Your task to perform on an android device: Is it going to rain tomorrow? Image 0: 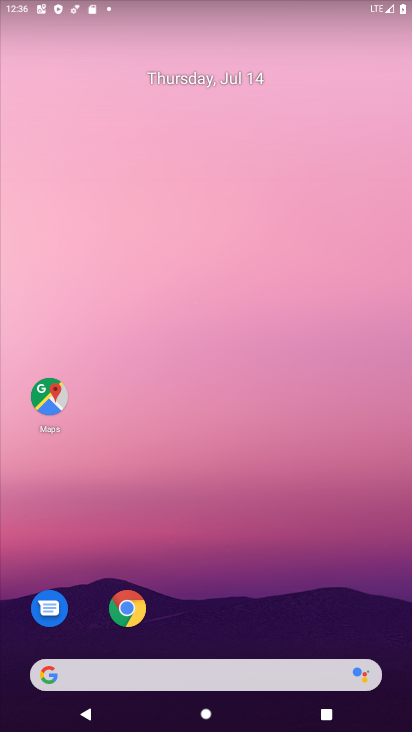
Step 0: drag from (35, 565) to (159, 241)
Your task to perform on an android device: Is it going to rain tomorrow? Image 1: 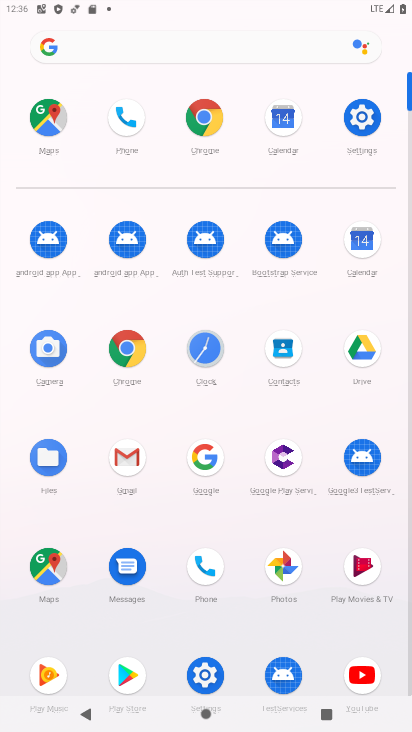
Step 1: press home button
Your task to perform on an android device: Is it going to rain tomorrow? Image 2: 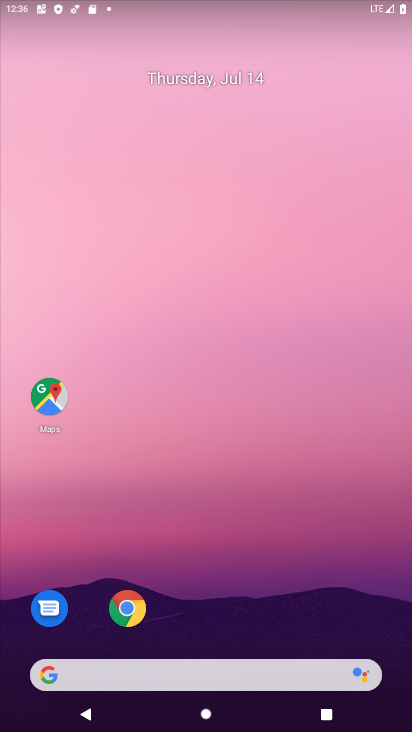
Step 2: click (202, 673)
Your task to perform on an android device: Is it going to rain tomorrow? Image 3: 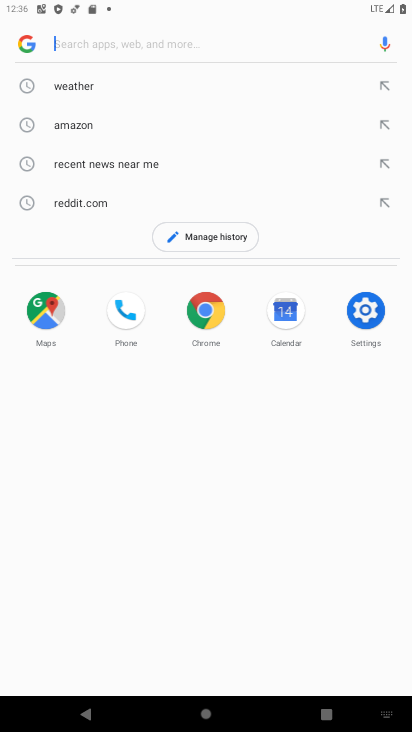
Step 3: click (123, 73)
Your task to perform on an android device: Is it going to rain tomorrow? Image 4: 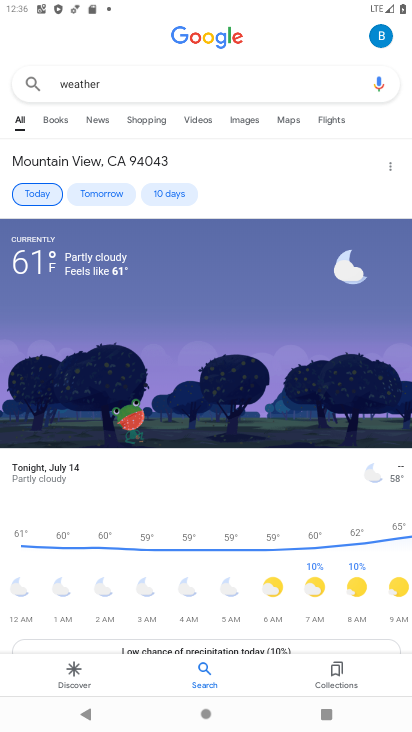
Step 4: task complete